Your task to perform on an android device: show emergency info Image 0: 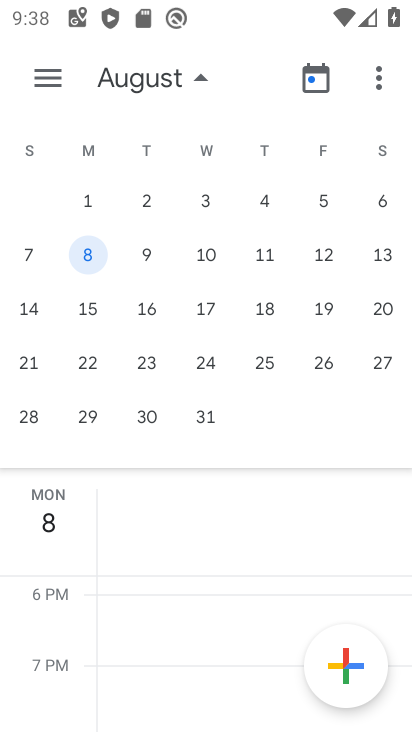
Step 0: press home button
Your task to perform on an android device: show emergency info Image 1: 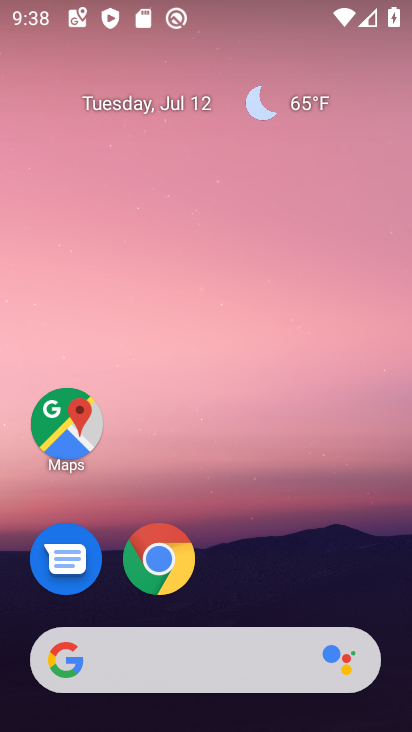
Step 1: drag from (363, 555) to (356, 85)
Your task to perform on an android device: show emergency info Image 2: 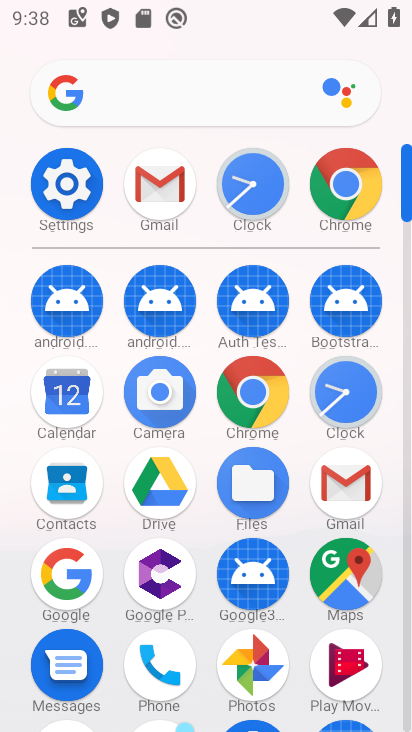
Step 2: click (68, 206)
Your task to perform on an android device: show emergency info Image 3: 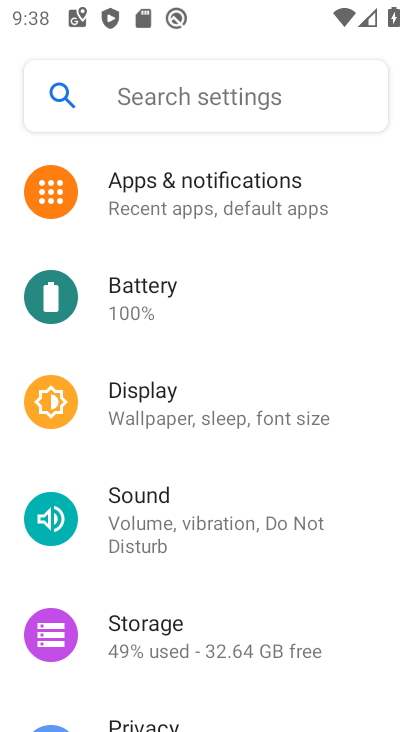
Step 3: drag from (371, 245) to (365, 435)
Your task to perform on an android device: show emergency info Image 4: 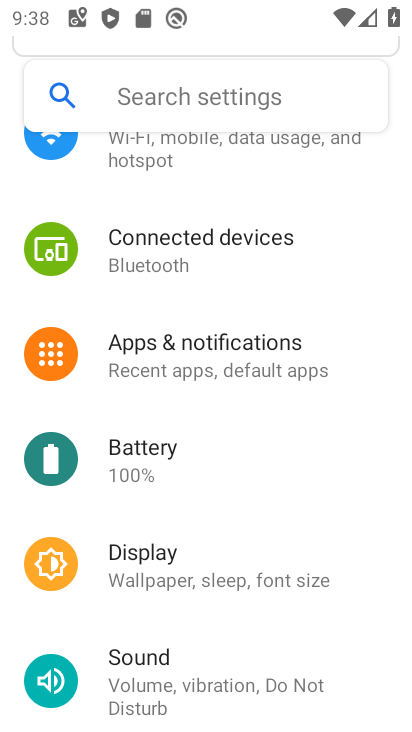
Step 4: drag from (353, 214) to (357, 407)
Your task to perform on an android device: show emergency info Image 5: 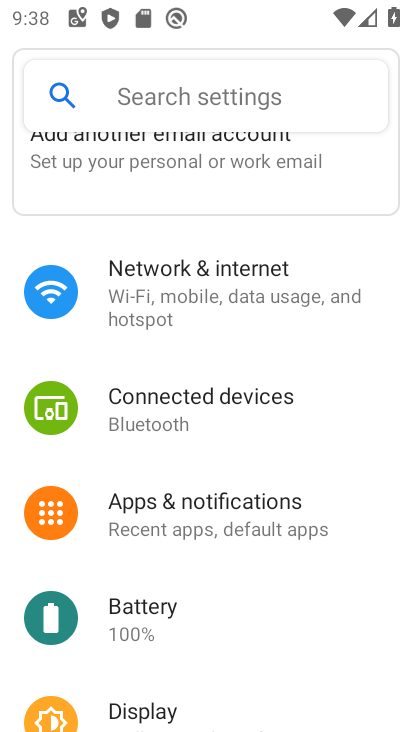
Step 5: drag from (364, 250) to (368, 462)
Your task to perform on an android device: show emergency info Image 6: 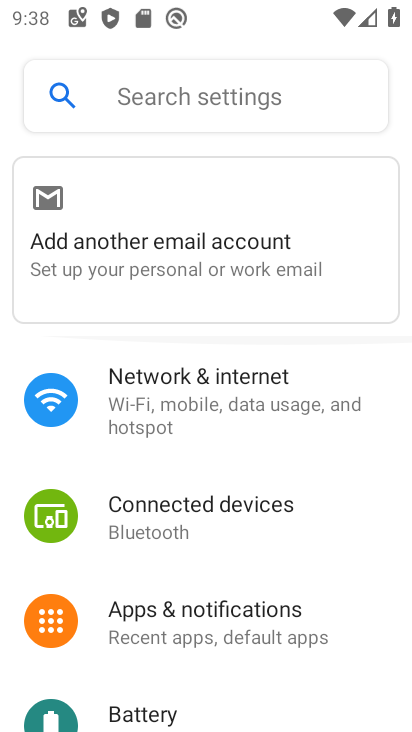
Step 6: drag from (369, 477) to (378, 338)
Your task to perform on an android device: show emergency info Image 7: 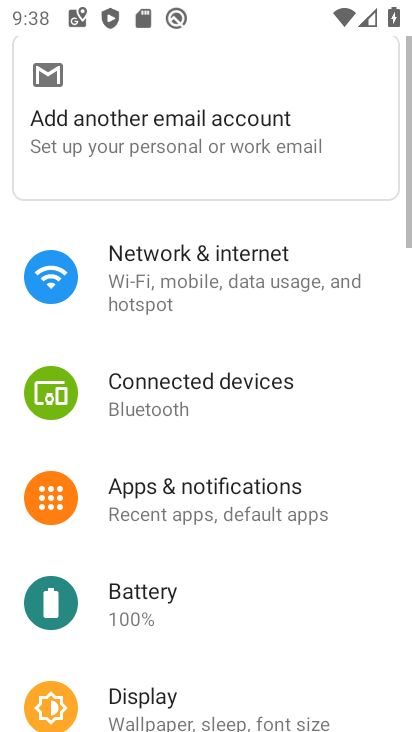
Step 7: drag from (371, 459) to (378, 264)
Your task to perform on an android device: show emergency info Image 8: 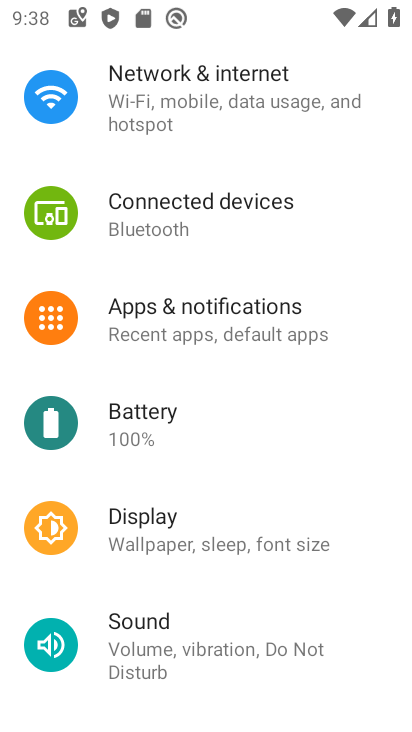
Step 8: drag from (357, 459) to (356, 230)
Your task to perform on an android device: show emergency info Image 9: 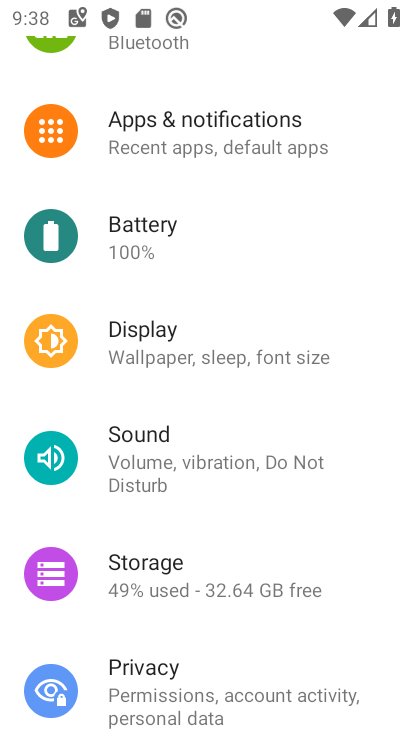
Step 9: drag from (352, 463) to (347, 259)
Your task to perform on an android device: show emergency info Image 10: 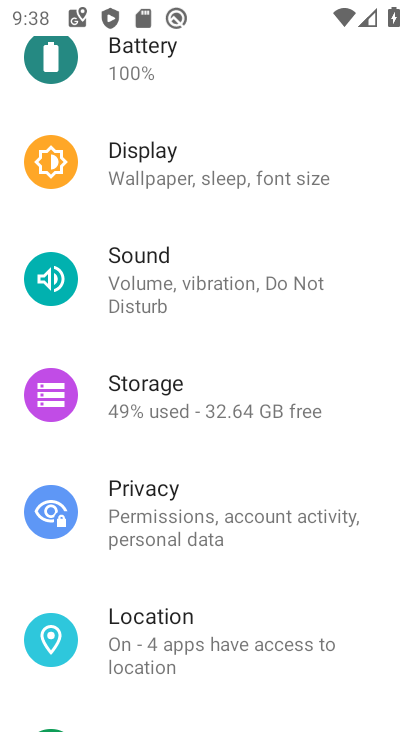
Step 10: drag from (352, 138) to (363, 397)
Your task to perform on an android device: show emergency info Image 11: 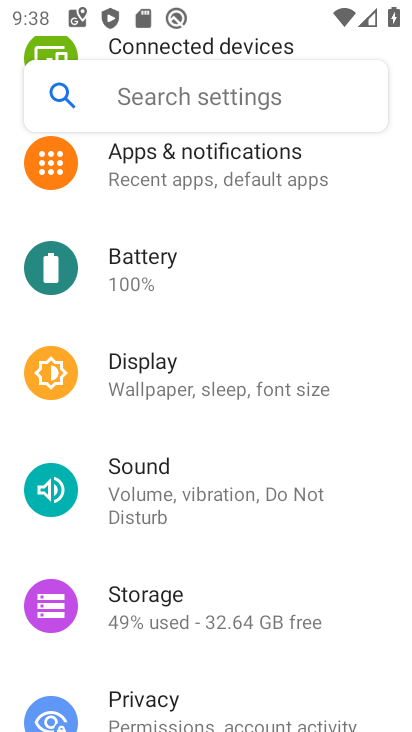
Step 11: drag from (366, 207) to (350, 407)
Your task to perform on an android device: show emergency info Image 12: 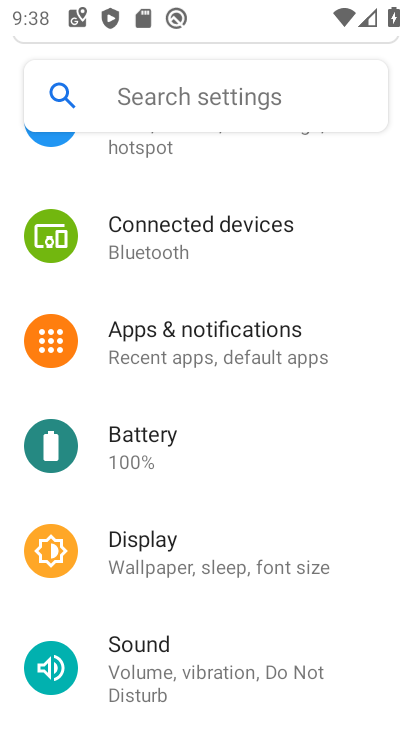
Step 12: drag from (356, 249) to (354, 489)
Your task to perform on an android device: show emergency info Image 13: 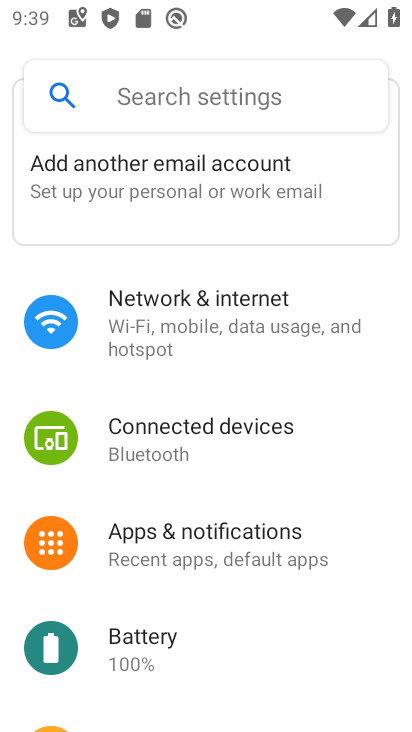
Step 13: drag from (365, 276) to (368, 545)
Your task to perform on an android device: show emergency info Image 14: 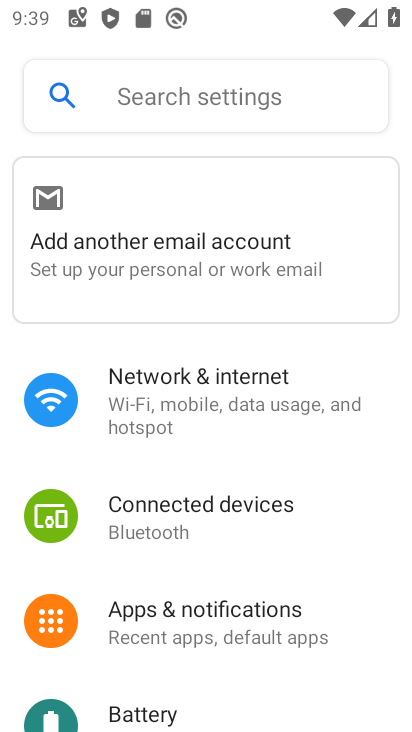
Step 14: drag from (342, 537) to (345, 291)
Your task to perform on an android device: show emergency info Image 15: 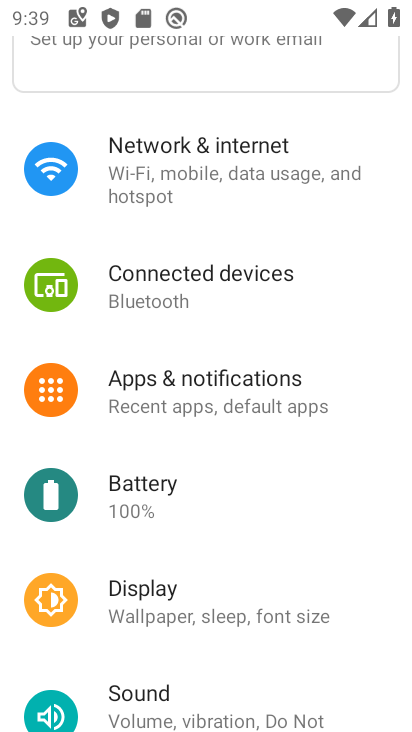
Step 15: drag from (338, 527) to (339, 272)
Your task to perform on an android device: show emergency info Image 16: 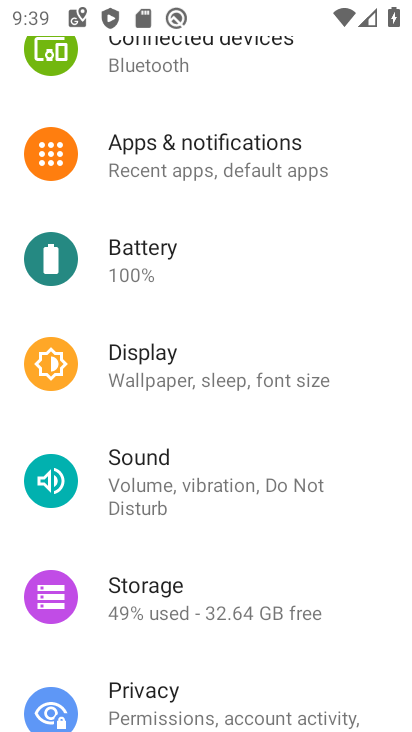
Step 16: drag from (315, 516) to (312, 235)
Your task to perform on an android device: show emergency info Image 17: 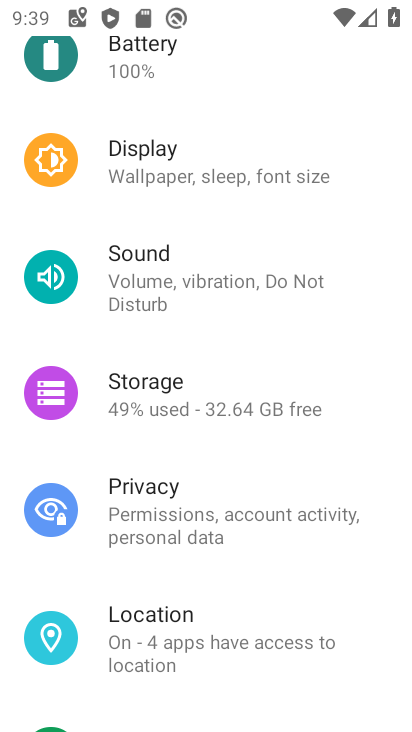
Step 17: drag from (348, 558) to (346, 327)
Your task to perform on an android device: show emergency info Image 18: 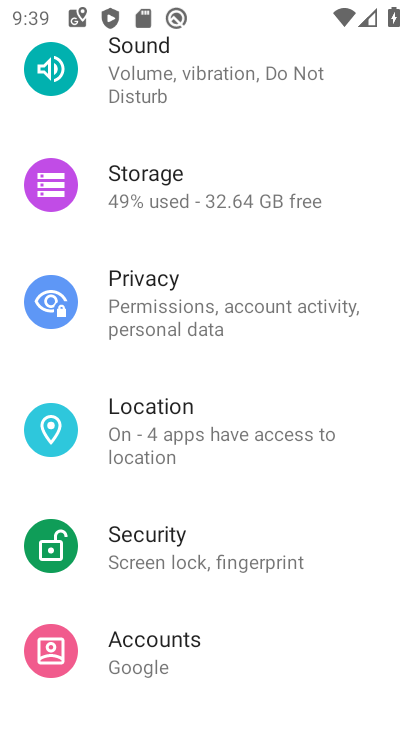
Step 18: drag from (326, 551) to (357, 174)
Your task to perform on an android device: show emergency info Image 19: 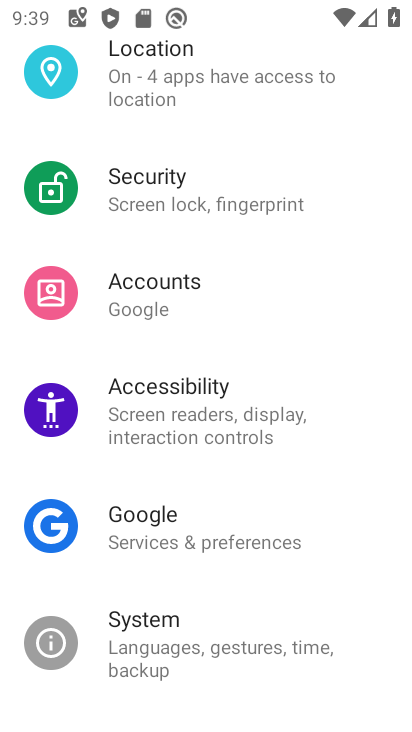
Step 19: drag from (338, 468) to (354, 314)
Your task to perform on an android device: show emergency info Image 20: 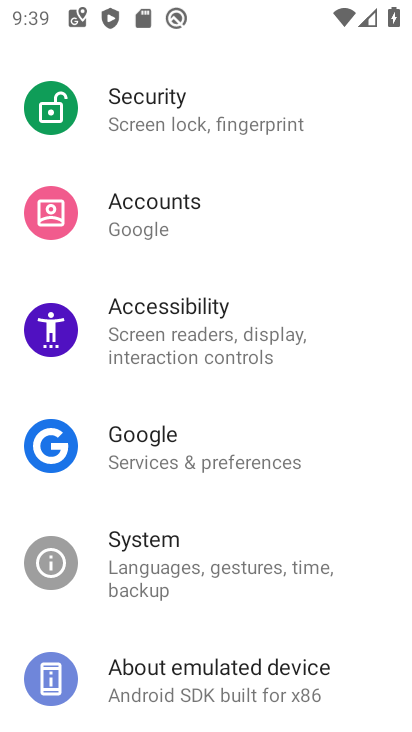
Step 20: drag from (357, 305) to (342, 446)
Your task to perform on an android device: show emergency info Image 21: 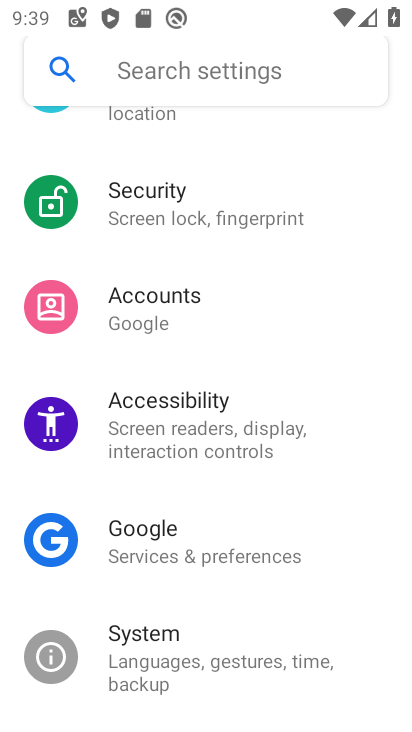
Step 21: drag from (344, 241) to (344, 374)
Your task to perform on an android device: show emergency info Image 22: 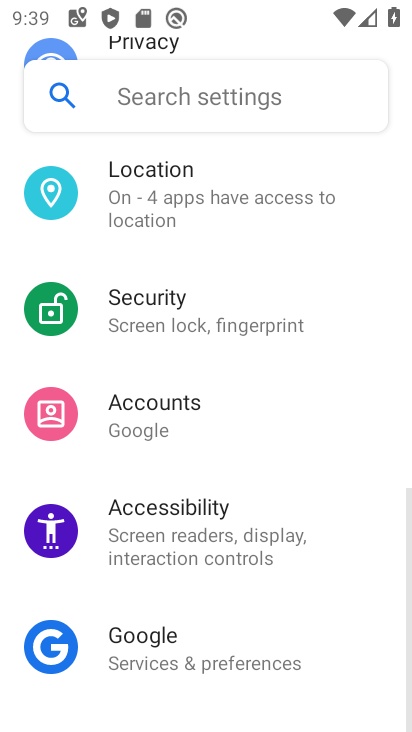
Step 22: drag from (326, 472) to (346, 228)
Your task to perform on an android device: show emergency info Image 23: 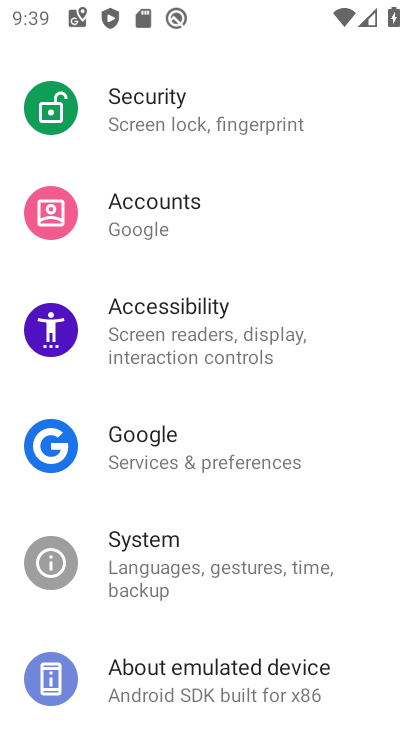
Step 23: click (243, 683)
Your task to perform on an android device: show emergency info Image 24: 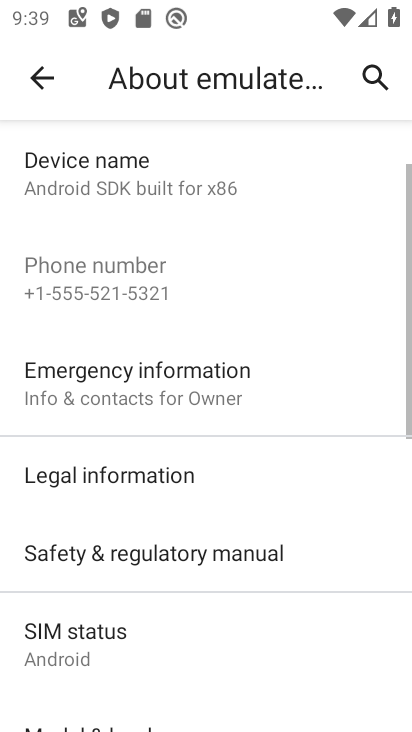
Step 24: drag from (349, 501) to (342, 304)
Your task to perform on an android device: show emergency info Image 25: 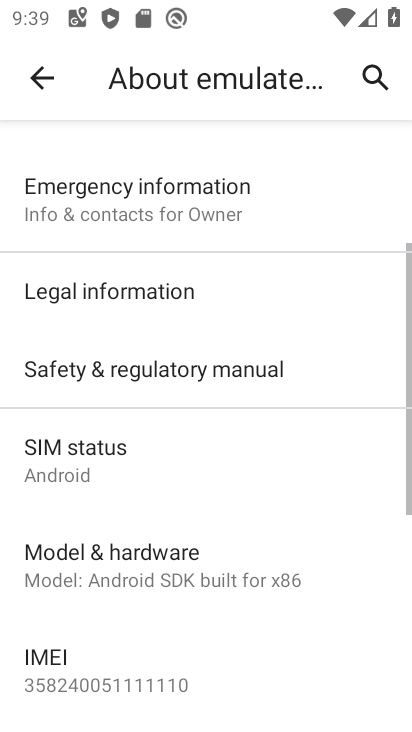
Step 25: click (220, 218)
Your task to perform on an android device: show emergency info Image 26: 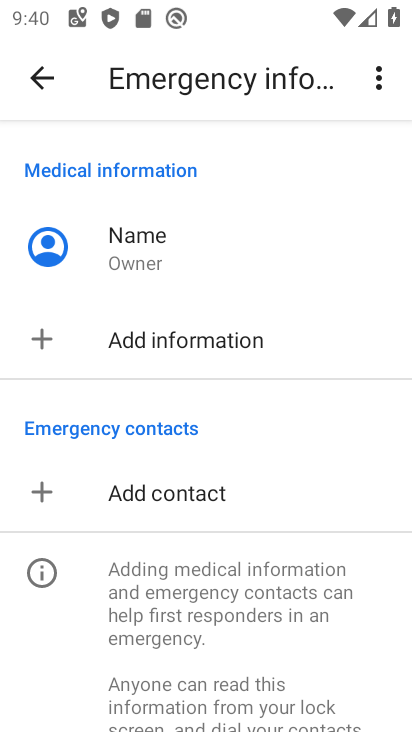
Step 26: task complete